Your task to perform on an android device: Open Google Chrome and open the bookmarks view Image 0: 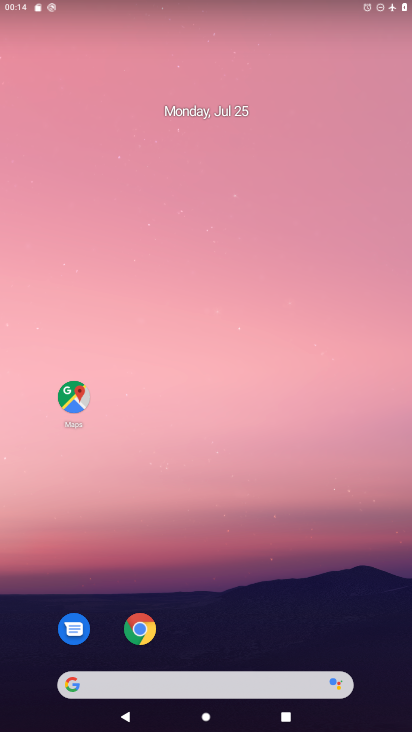
Step 0: drag from (216, 622) to (281, 45)
Your task to perform on an android device: Open Google Chrome and open the bookmarks view Image 1: 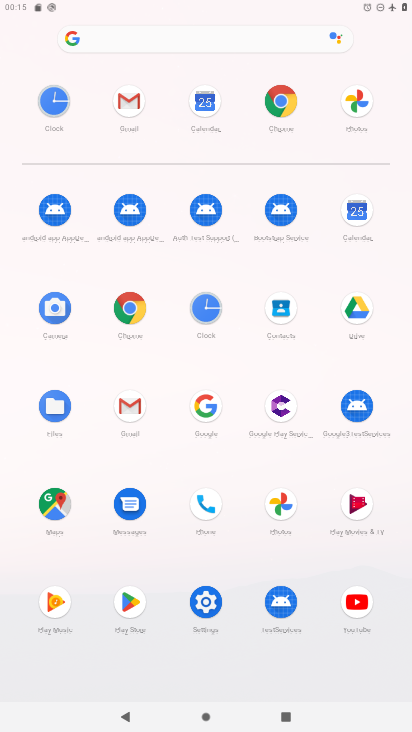
Step 1: click (110, 301)
Your task to perform on an android device: Open Google Chrome and open the bookmarks view Image 2: 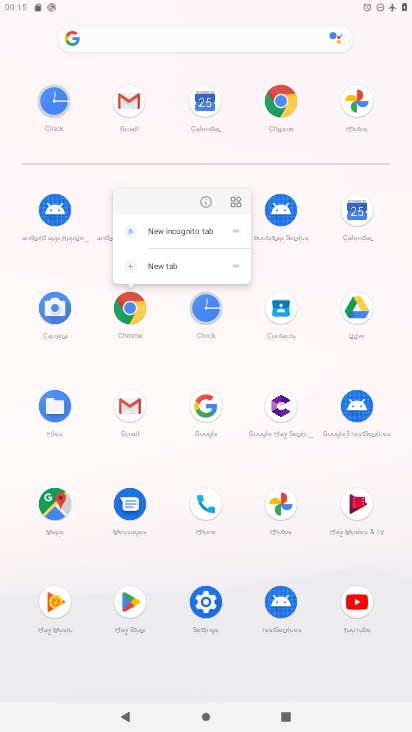
Step 2: click (205, 200)
Your task to perform on an android device: Open Google Chrome and open the bookmarks view Image 3: 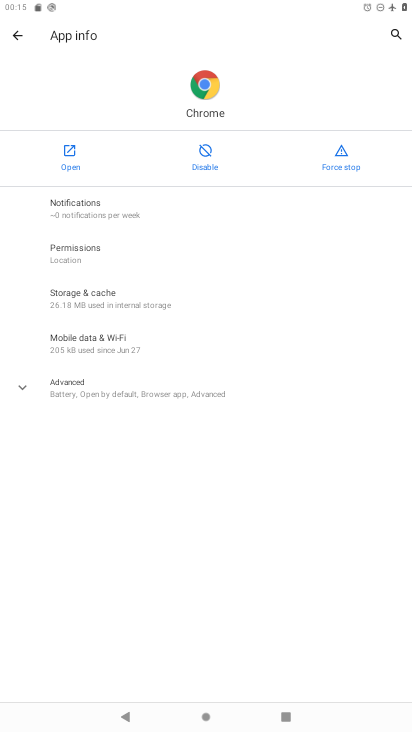
Step 3: click (72, 148)
Your task to perform on an android device: Open Google Chrome and open the bookmarks view Image 4: 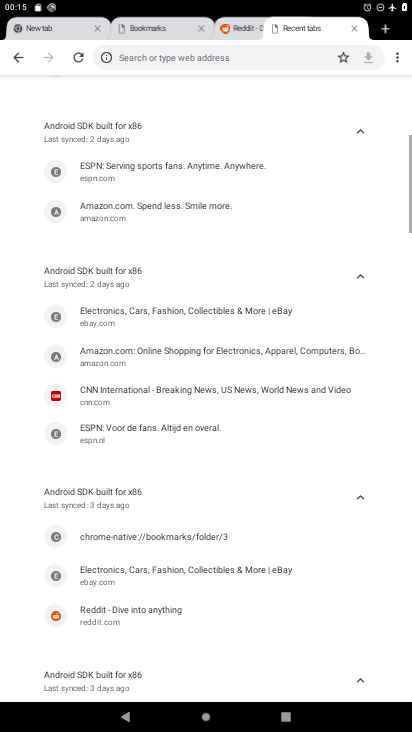
Step 4: task complete